Your task to perform on an android device: toggle notification dots Image 0: 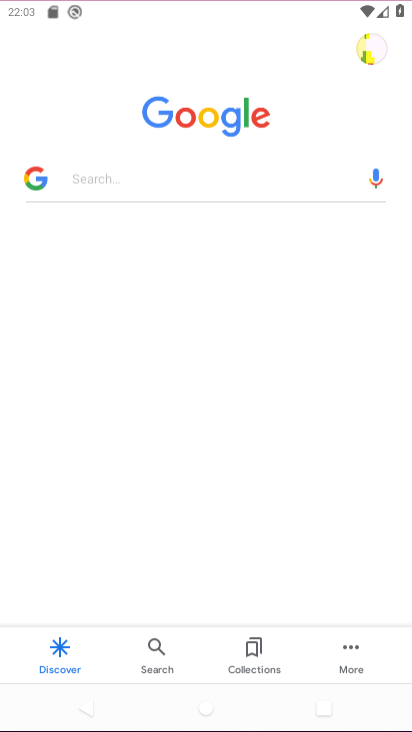
Step 0: press home button
Your task to perform on an android device: toggle notification dots Image 1: 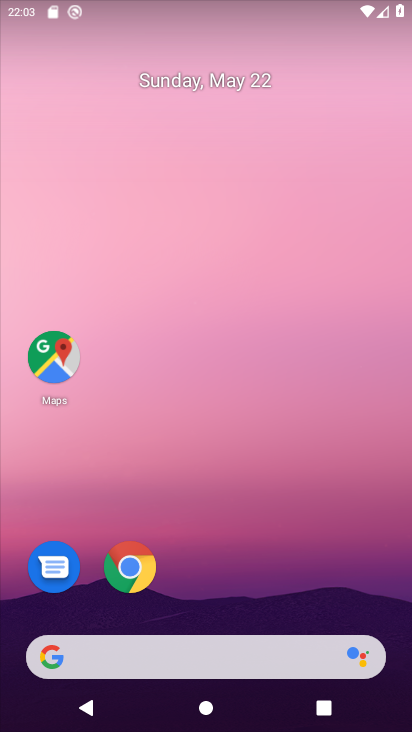
Step 1: drag from (220, 597) to (244, 112)
Your task to perform on an android device: toggle notification dots Image 2: 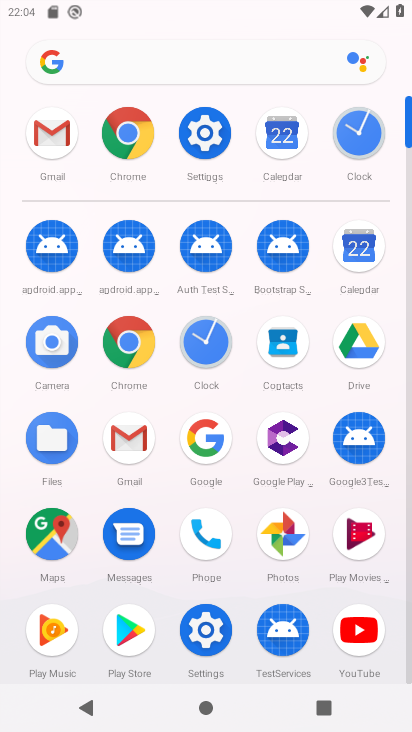
Step 2: click (205, 129)
Your task to perform on an android device: toggle notification dots Image 3: 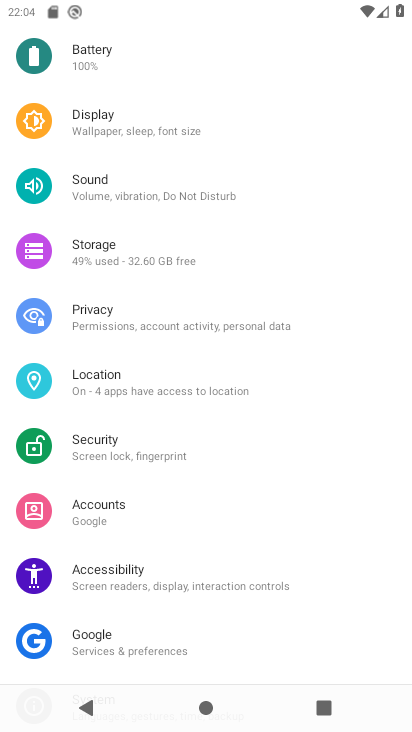
Step 3: drag from (150, 96) to (111, 725)
Your task to perform on an android device: toggle notification dots Image 4: 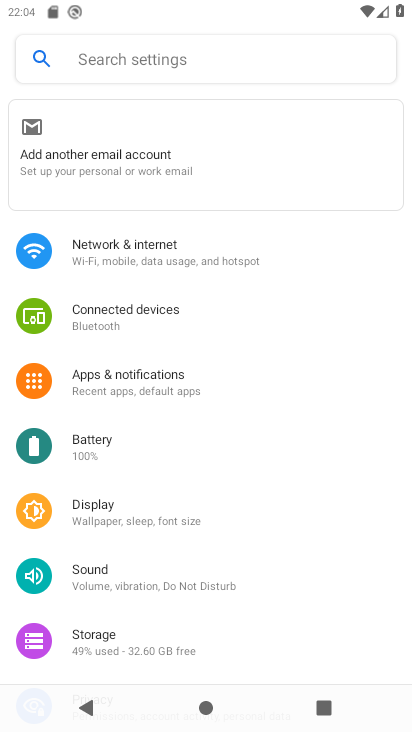
Step 4: click (184, 387)
Your task to perform on an android device: toggle notification dots Image 5: 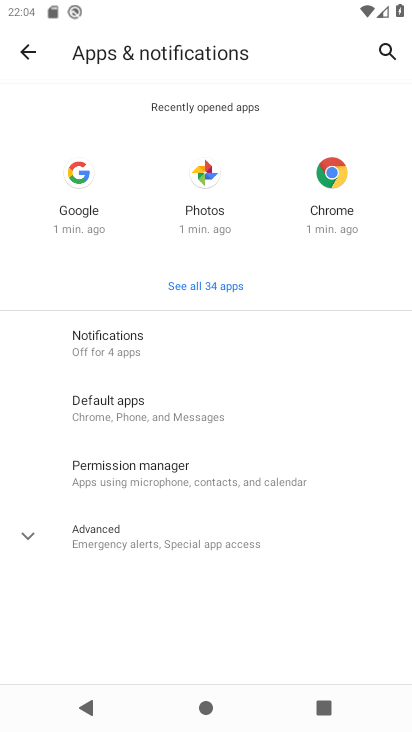
Step 5: click (133, 545)
Your task to perform on an android device: toggle notification dots Image 6: 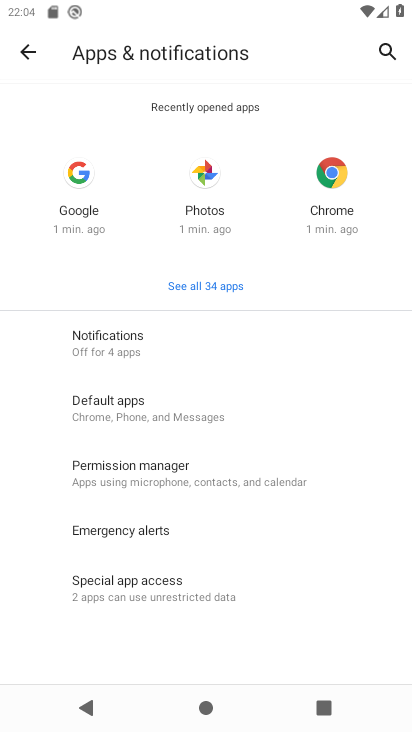
Step 6: click (114, 351)
Your task to perform on an android device: toggle notification dots Image 7: 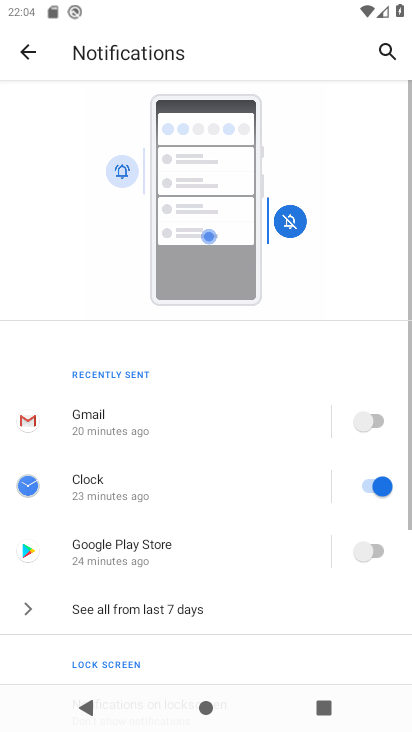
Step 7: drag from (196, 552) to (209, 41)
Your task to perform on an android device: toggle notification dots Image 8: 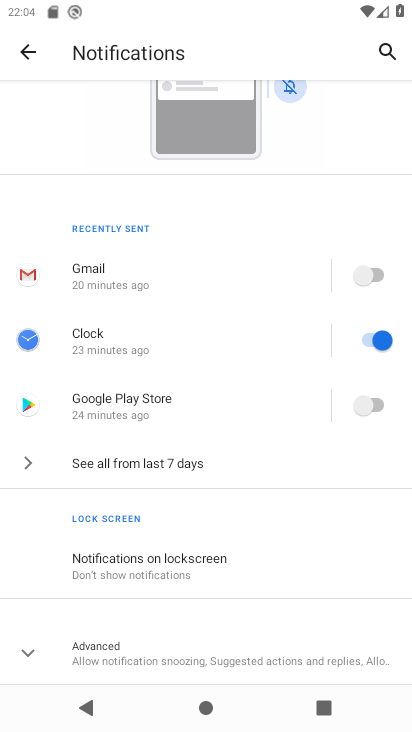
Step 8: click (130, 654)
Your task to perform on an android device: toggle notification dots Image 9: 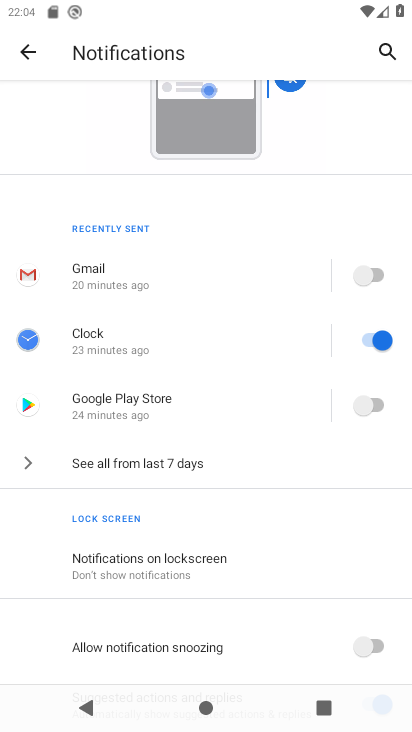
Step 9: drag from (165, 631) to (193, 239)
Your task to perform on an android device: toggle notification dots Image 10: 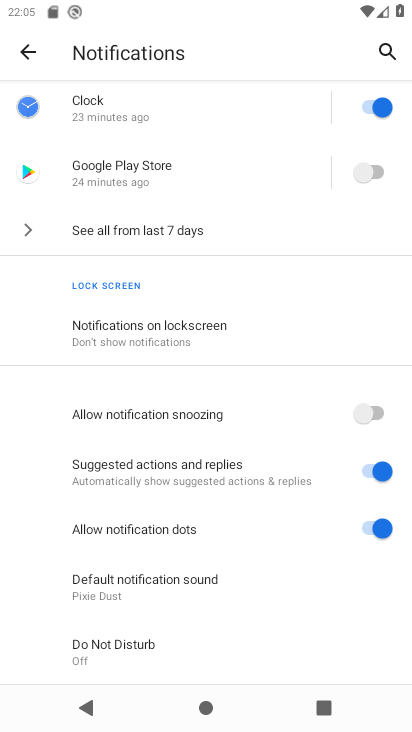
Step 10: click (371, 524)
Your task to perform on an android device: toggle notification dots Image 11: 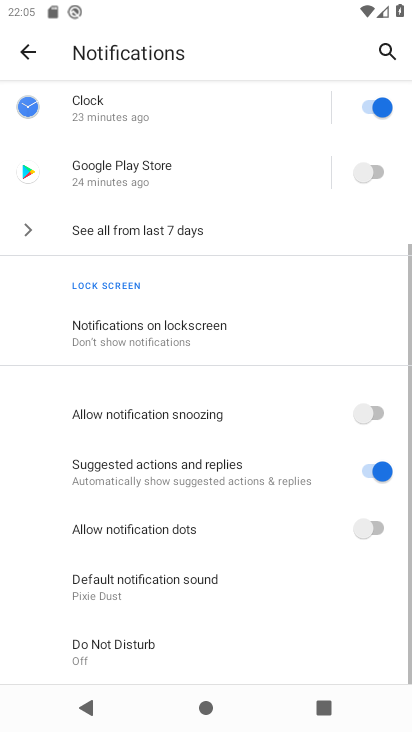
Step 11: task complete